Your task to perform on an android device: Is it going to rain this weekend? Image 0: 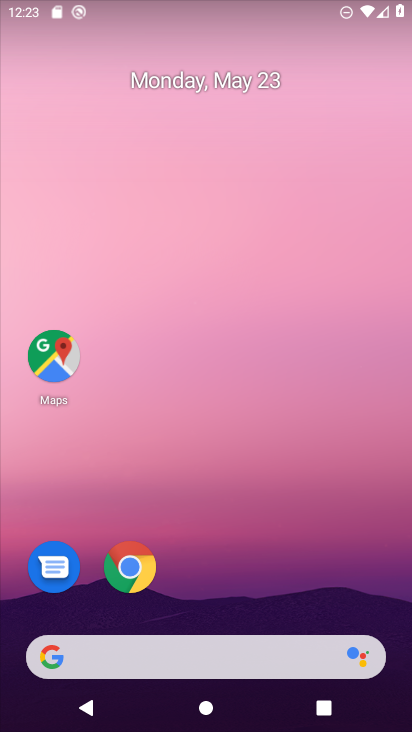
Step 0: click (144, 664)
Your task to perform on an android device: Is it going to rain this weekend? Image 1: 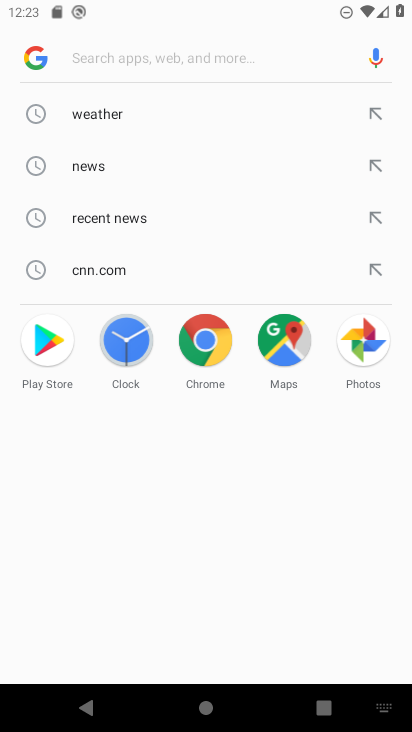
Step 1: click (144, 664)
Your task to perform on an android device: Is it going to rain this weekend? Image 2: 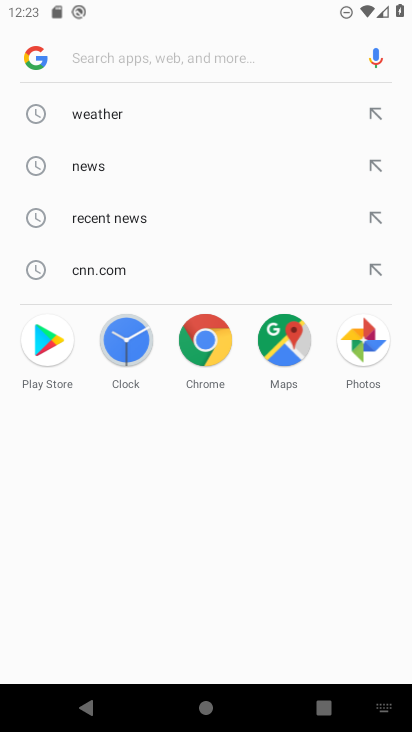
Step 2: click (144, 664)
Your task to perform on an android device: Is it going to rain this weekend? Image 3: 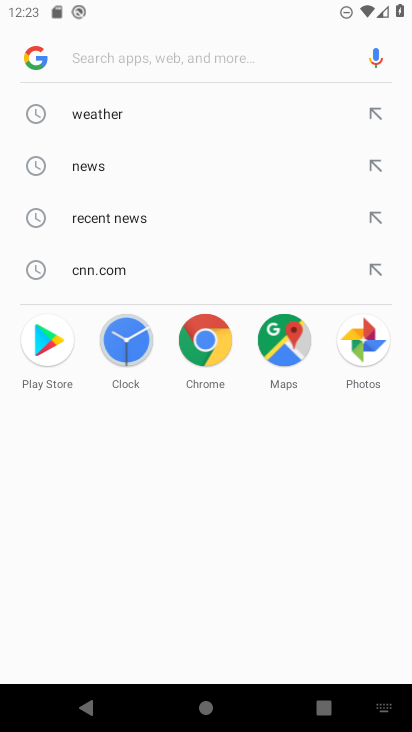
Step 3: click (144, 664)
Your task to perform on an android device: Is it going to rain this weekend? Image 4: 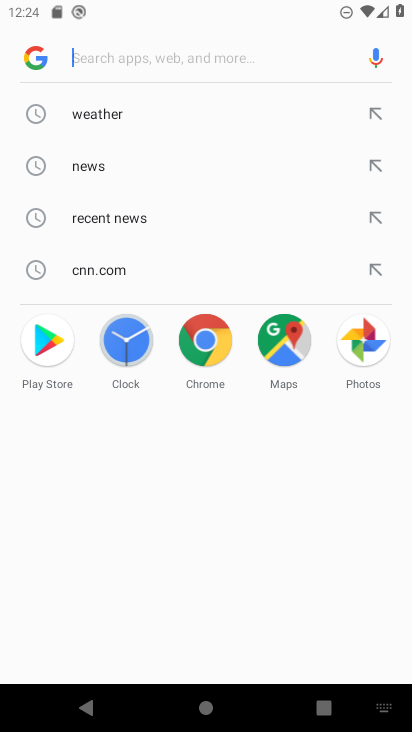
Step 4: click (111, 110)
Your task to perform on an android device: Is it going to rain this weekend? Image 5: 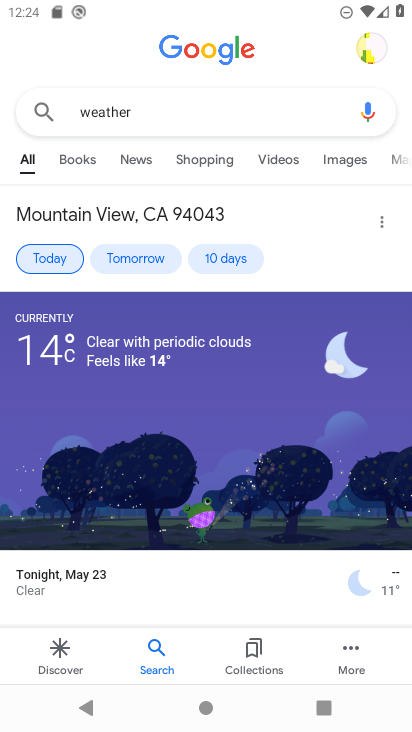
Step 5: click (111, 110)
Your task to perform on an android device: Is it going to rain this weekend? Image 6: 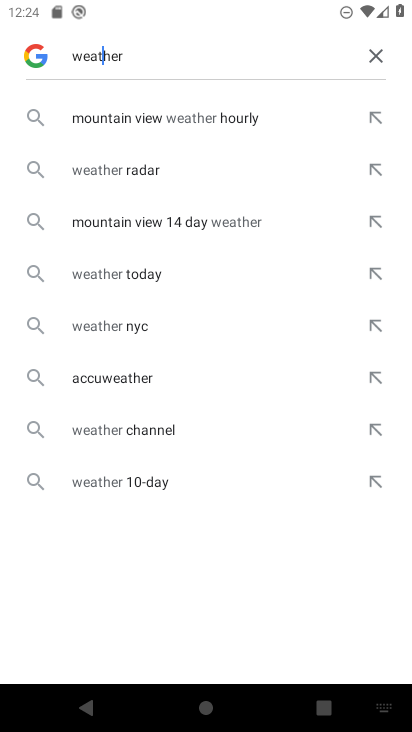
Step 6: click (111, 110)
Your task to perform on an android device: Is it going to rain this weekend? Image 7: 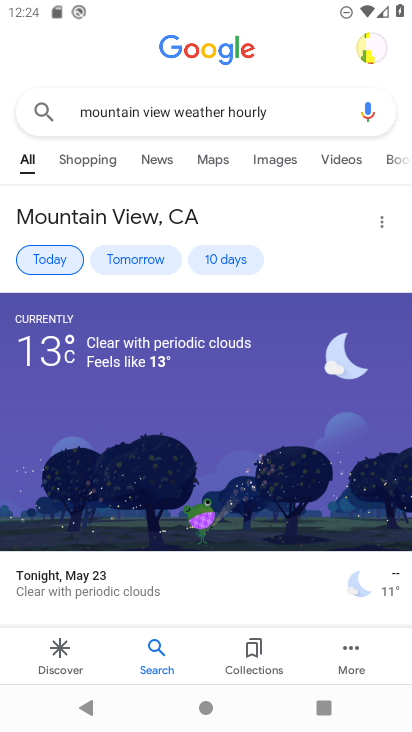
Step 7: click (219, 258)
Your task to perform on an android device: Is it going to rain this weekend? Image 8: 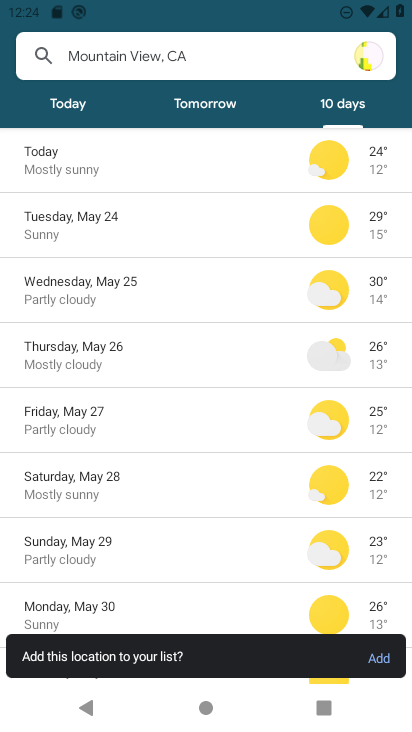
Step 8: task complete